Your task to perform on an android device: turn off picture-in-picture Image 0: 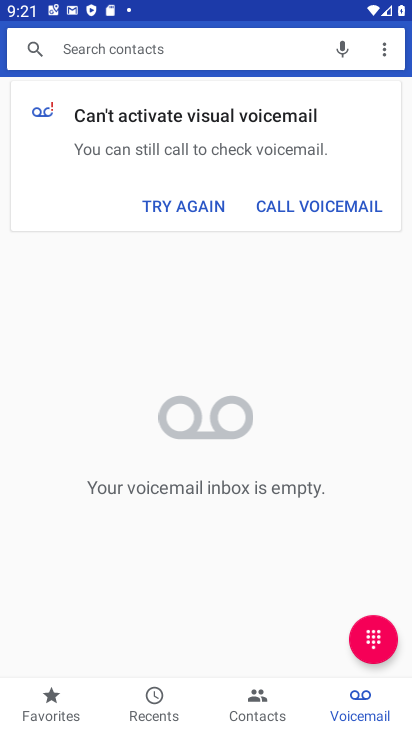
Step 0: press home button
Your task to perform on an android device: turn off picture-in-picture Image 1: 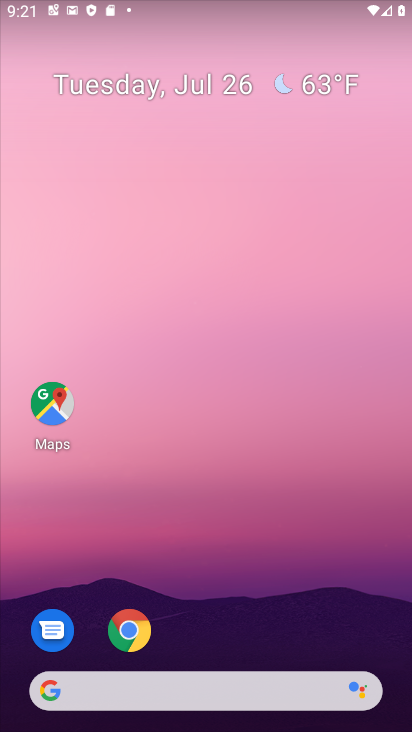
Step 1: click (133, 623)
Your task to perform on an android device: turn off picture-in-picture Image 2: 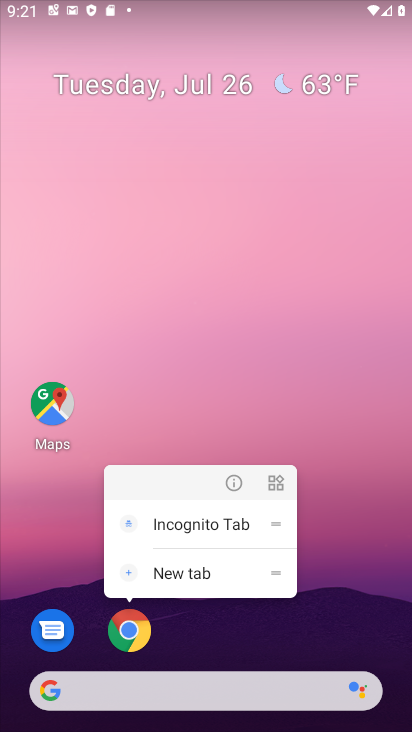
Step 2: click (230, 476)
Your task to perform on an android device: turn off picture-in-picture Image 3: 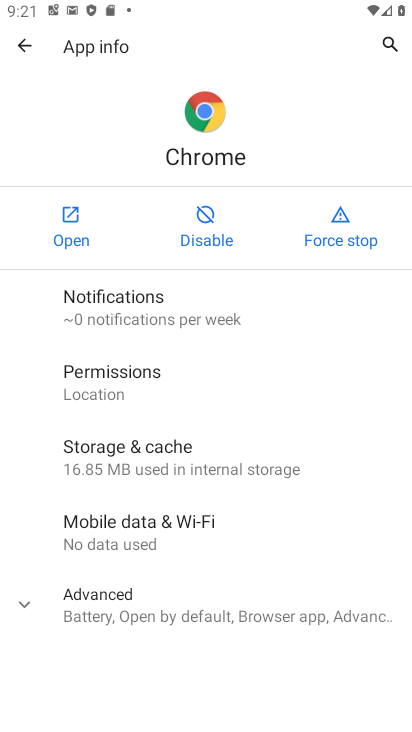
Step 3: click (23, 597)
Your task to perform on an android device: turn off picture-in-picture Image 4: 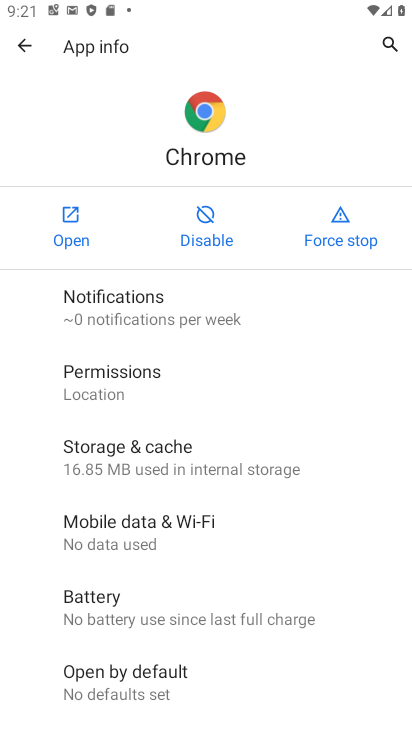
Step 4: drag from (212, 677) to (245, 308)
Your task to perform on an android device: turn off picture-in-picture Image 5: 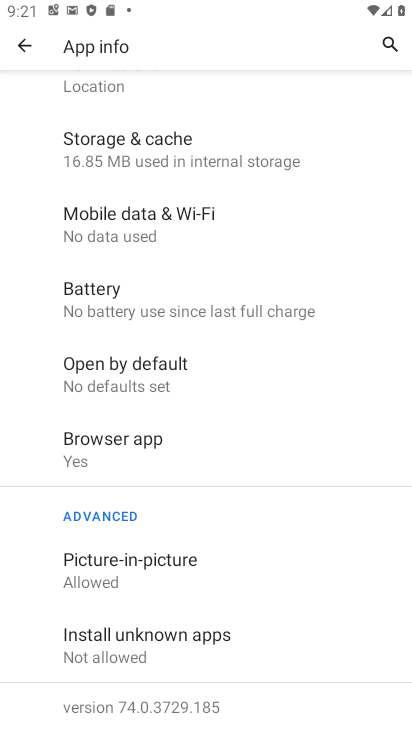
Step 5: click (128, 568)
Your task to perform on an android device: turn off picture-in-picture Image 6: 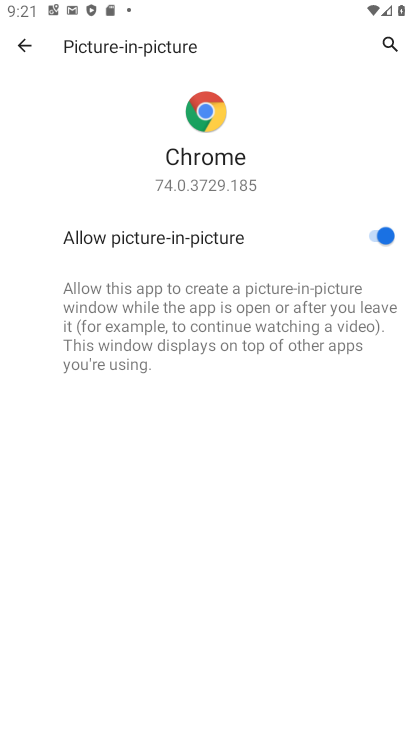
Step 6: click (372, 234)
Your task to perform on an android device: turn off picture-in-picture Image 7: 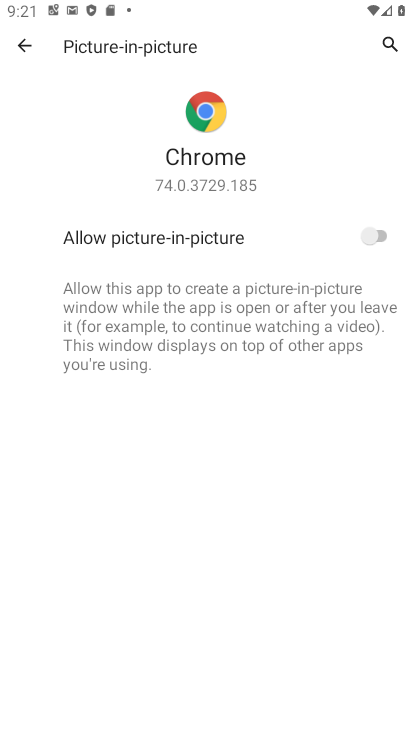
Step 7: task complete